Your task to perform on an android device: uninstall "Google Keep" Image 0: 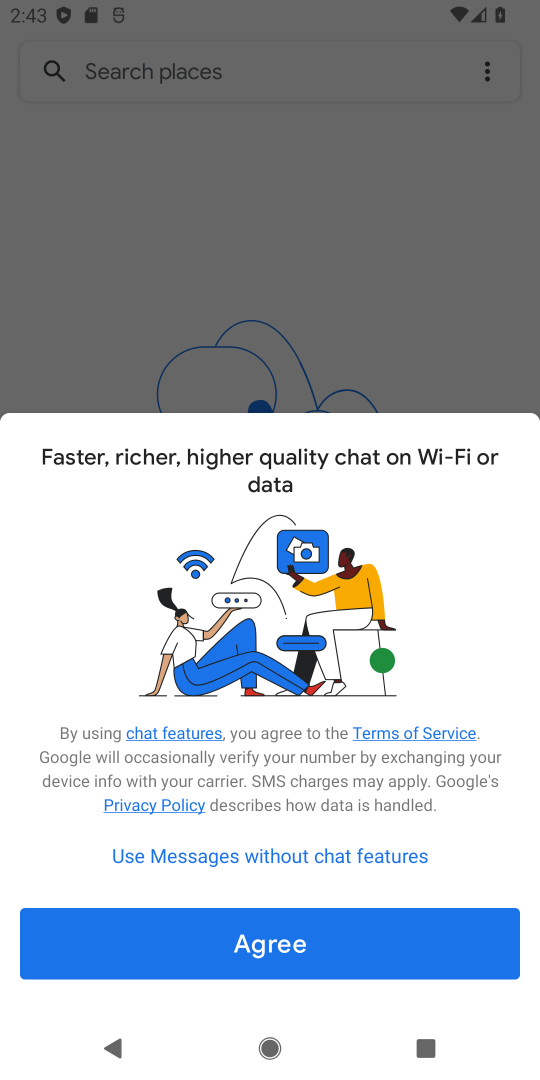
Step 0: press home button
Your task to perform on an android device: uninstall "Google Keep" Image 1: 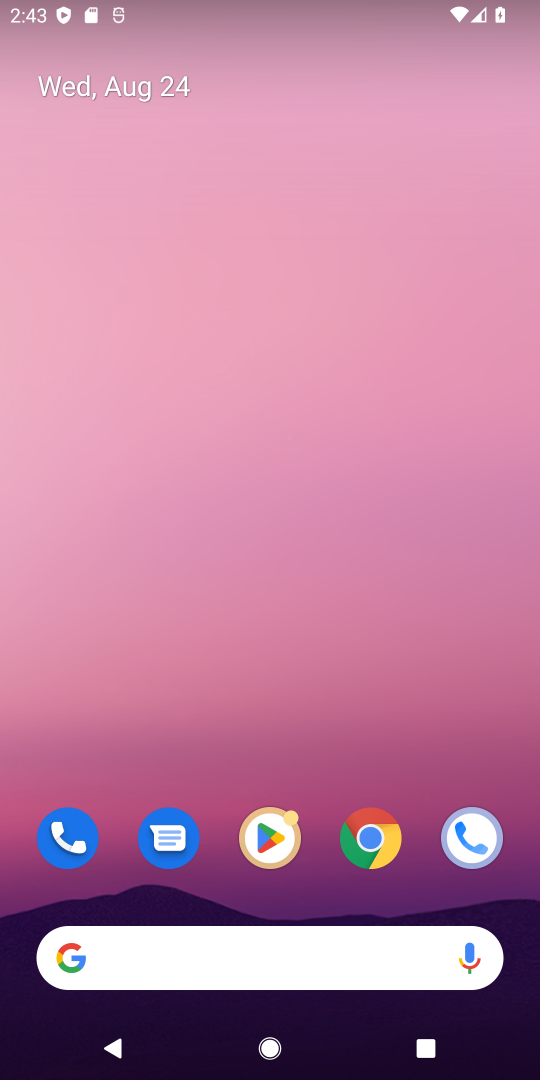
Step 1: drag from (440, 748) to (429, 153)
Your task to perform on an android device: uninstall "Google Keep" Image 2: 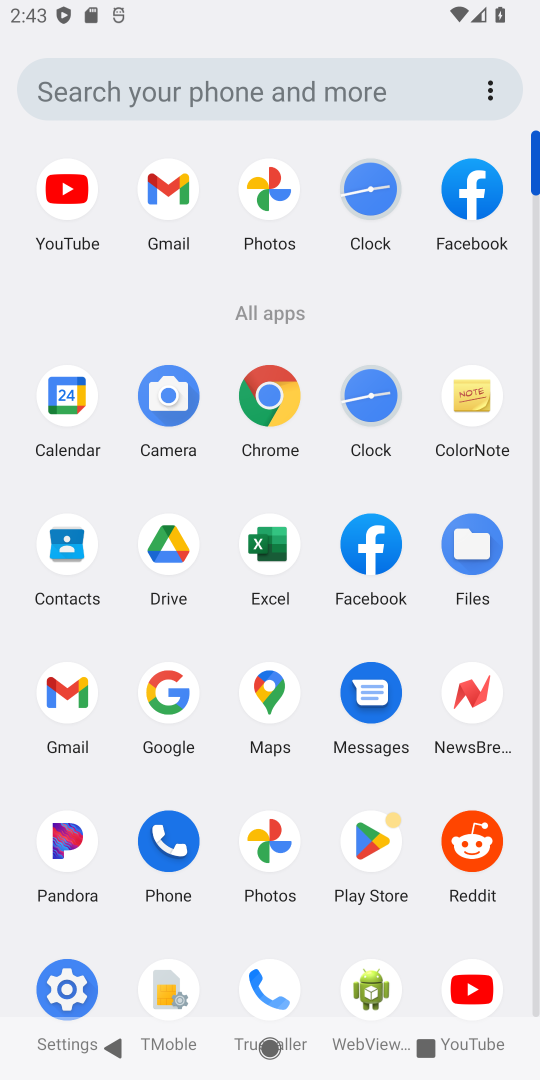
Step 2: click (385, 830)
Your task to perform on an android device: uninstall "Google Keep" Image 3: 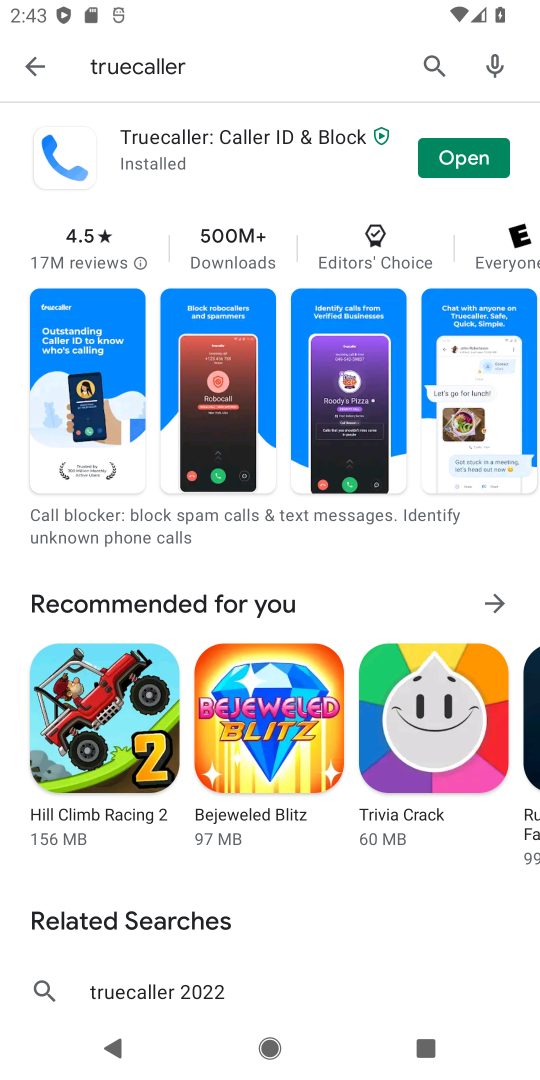
Step 3: press back button
Your task to perform on an android device: uninstall "Google Keep" Image 4: 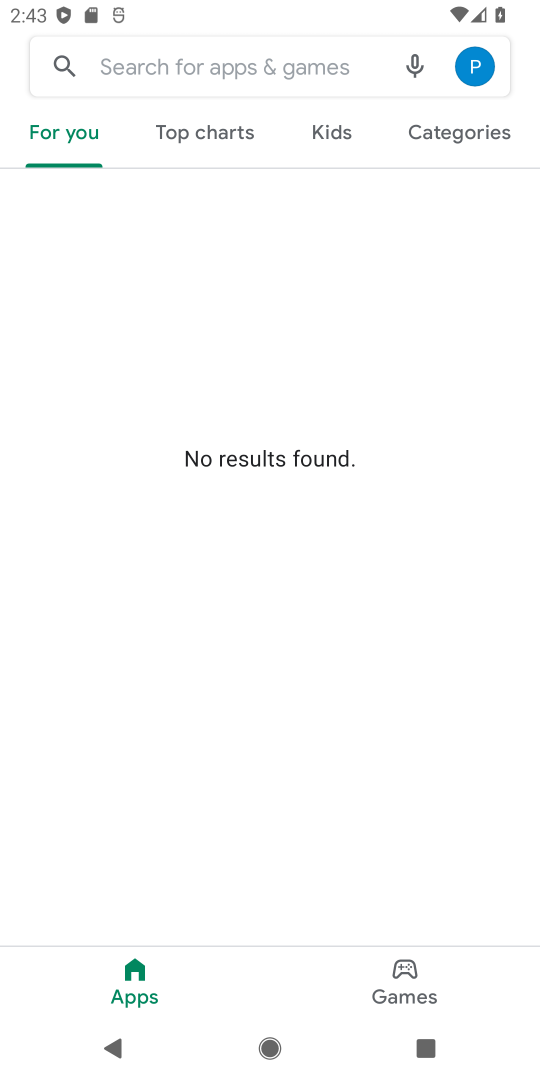
Step 4: click (306, 70)
Your task to perform on an android device: uninstall "Google Keep" Image 5: 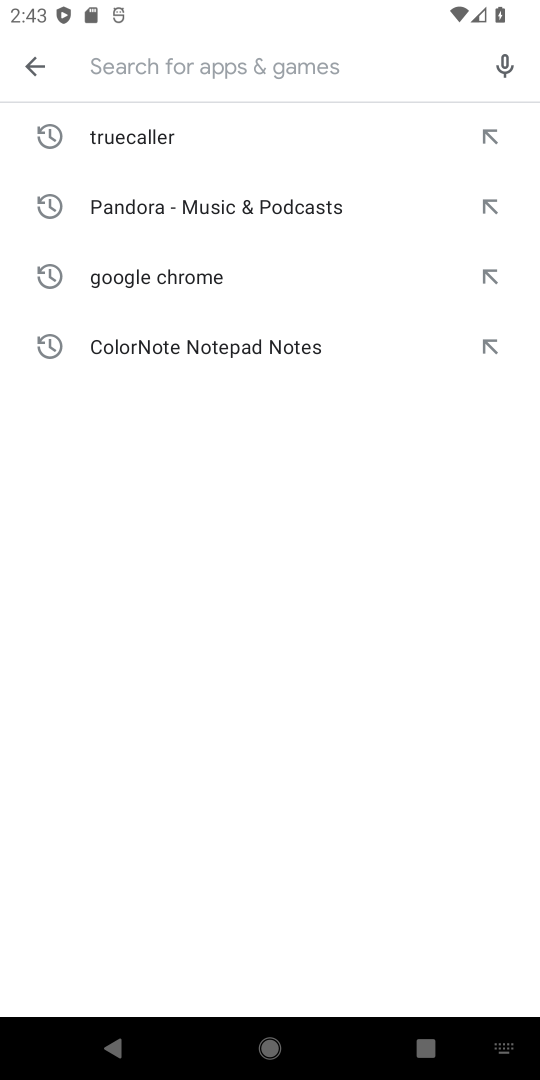
Step 5: press enter
Your task to perform on an android device: uninstall "Google Keep" Image 6: 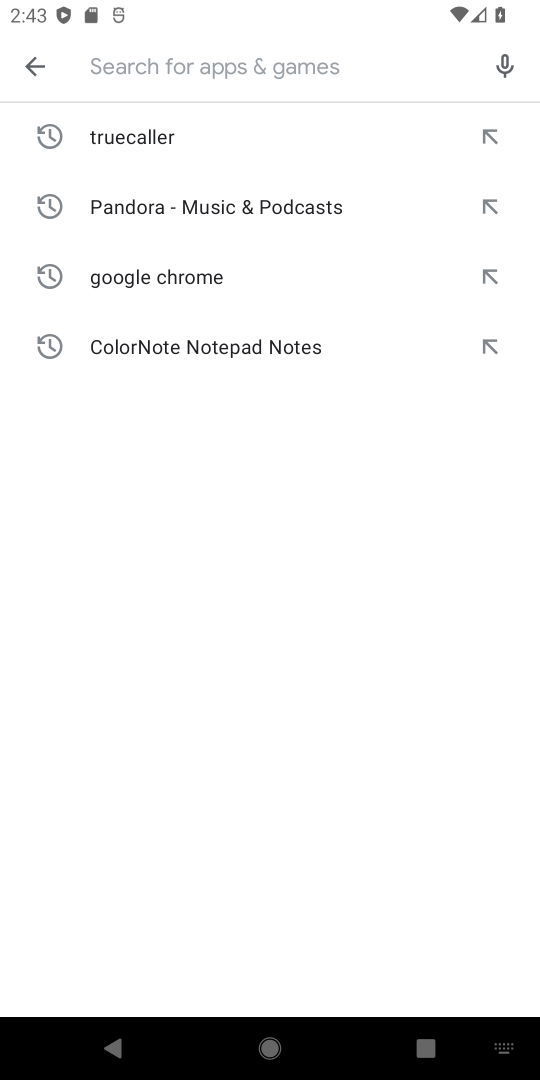
Step 6: type "google keep"
Your task to perform on an android device: uninstall "Google Keep" Image 7: 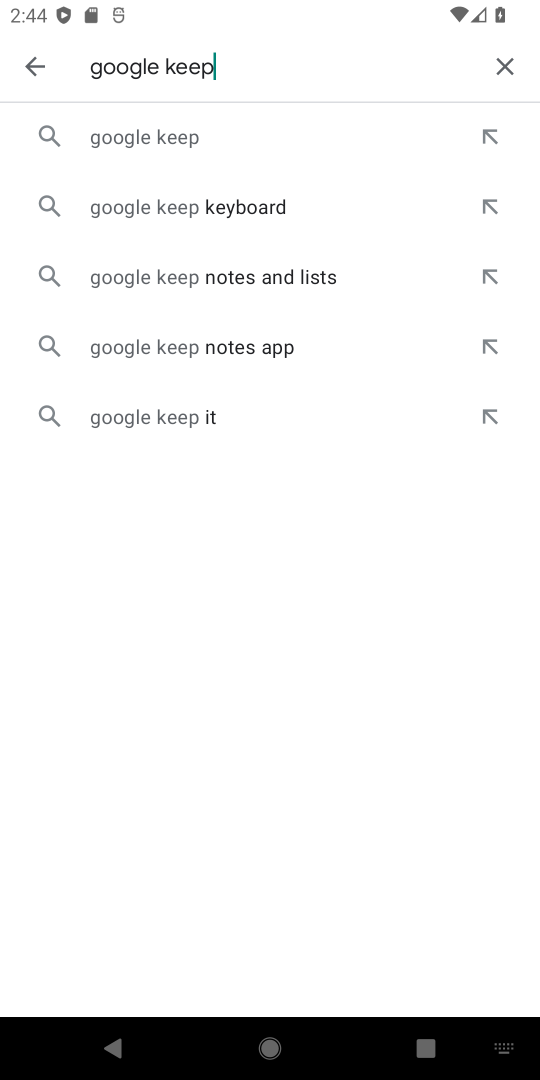
Step 7: click (166, 142)
Your task to perform on an android device: uninstall "Google Keep" Image 8: 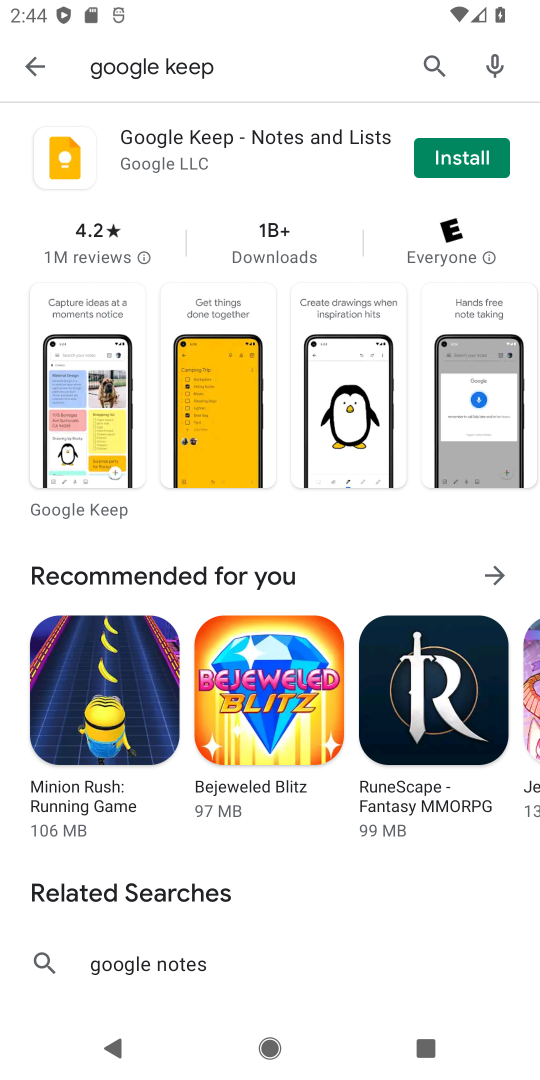
Step 8: task complete